Your task to perform on an android device: What's the weather going to be this weekend? Image 0: 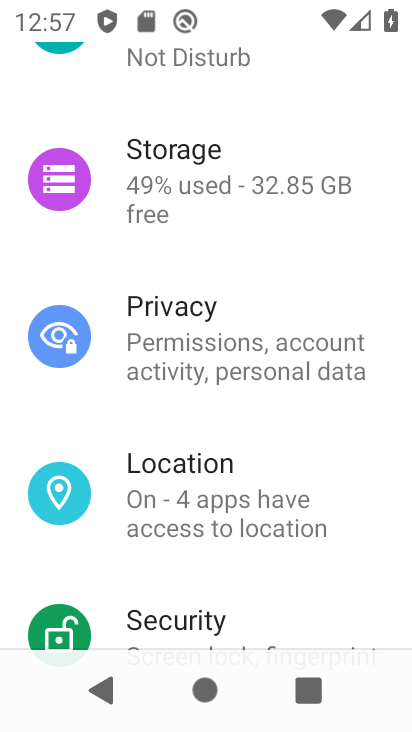
Step 0: press home button
Your task to perform on an android device: What's the weather going to be this weekend? Image 1: 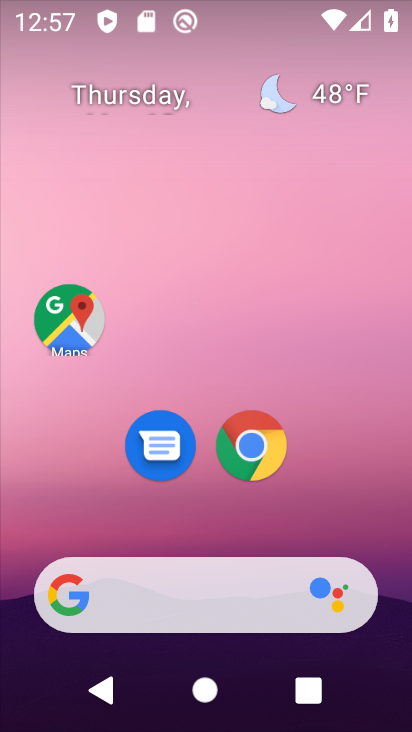
Step 1: click (338, 95)
Your task to perform on an android device: What's the weather going to be this weekend? Image 2: 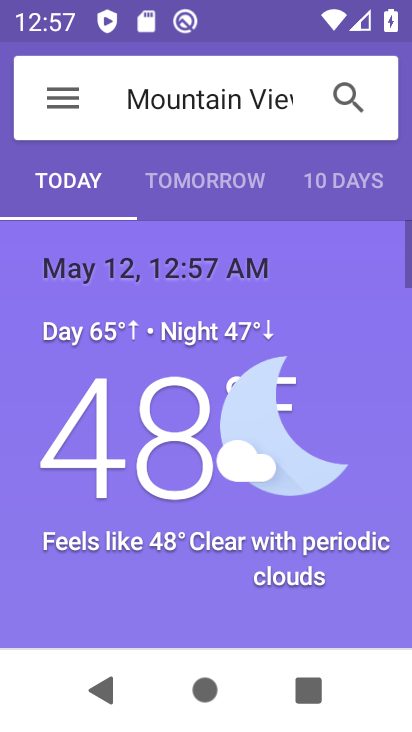
Step 2: click (216, 188)
Your task to perform on an android device: What's the weather going to be this weekend? Image 3: 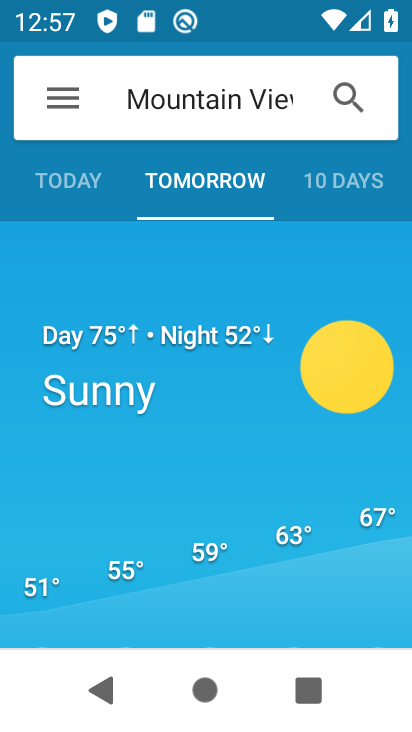
Step 3: click (373, 181)
Your task to perform on an android device: What's the weather going to be this weekend? Image 4: 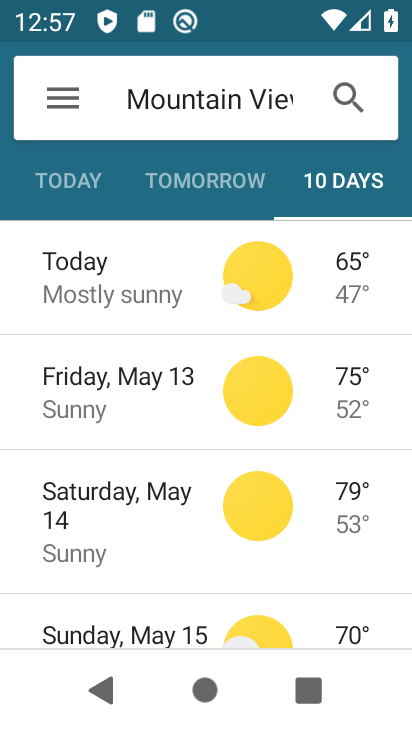
Step 4: task complete